Your task to perform on an android device: Open location settings Image 0: 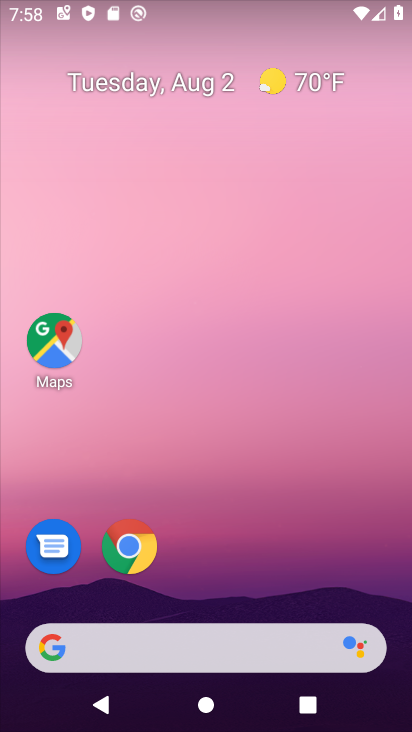
Step 0: drag from (225, 553) to (272, 338)
Your task to perform on an android device: Open location settings Image 1: 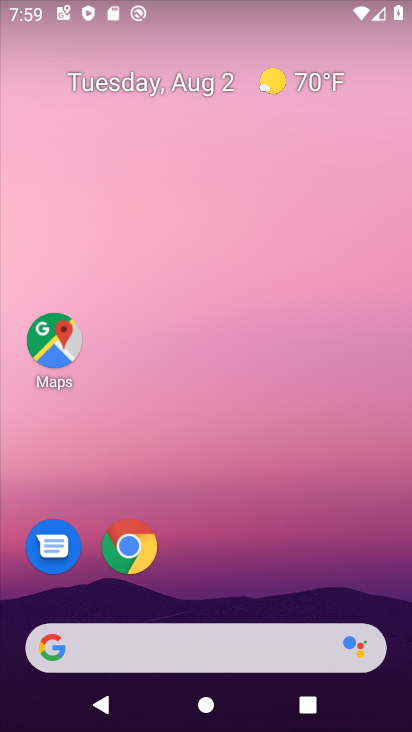
Step 1: drag from (223, 534) to (284, 17)
Your task to perform on an android device: Open location settings Image 2: 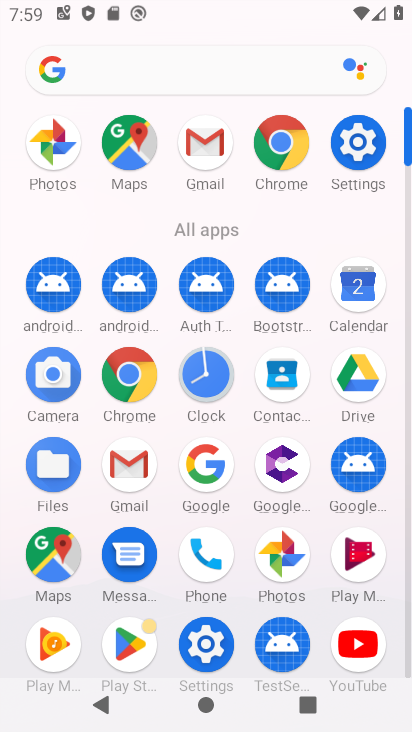
Step 2: click (206, 648)
Your task to perform on an android device: Open location settings Image 3: 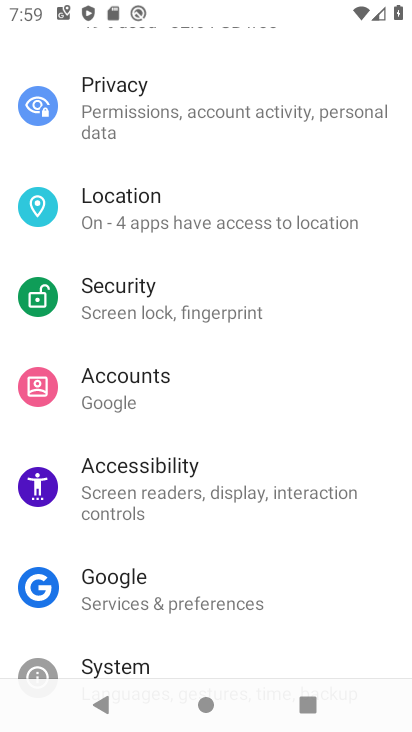
Step 3: click (155, 203)
Your task to perform on an android device: Open location settings Image 4: 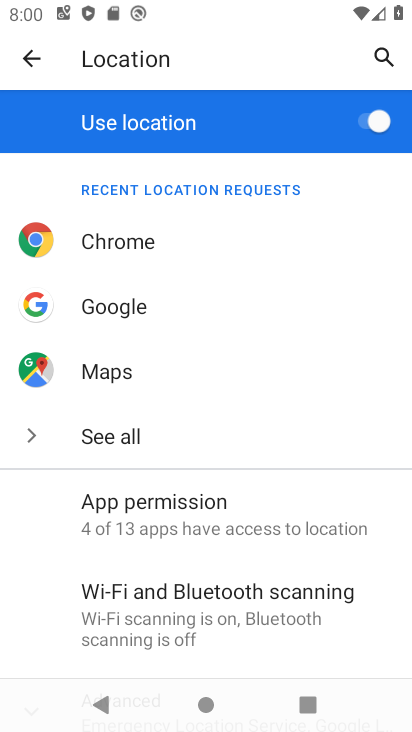
Step 4: task complete